Your task to perform on an android device: Do I have any events this weekend? Image 0: 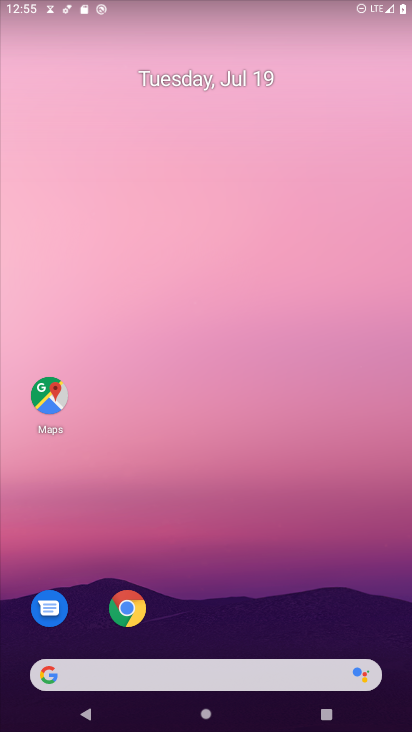
Step 0: drag from (307, 659) to (261, 169)
Your task to perform on an android device: Do I have any events this weekend? Image 1: 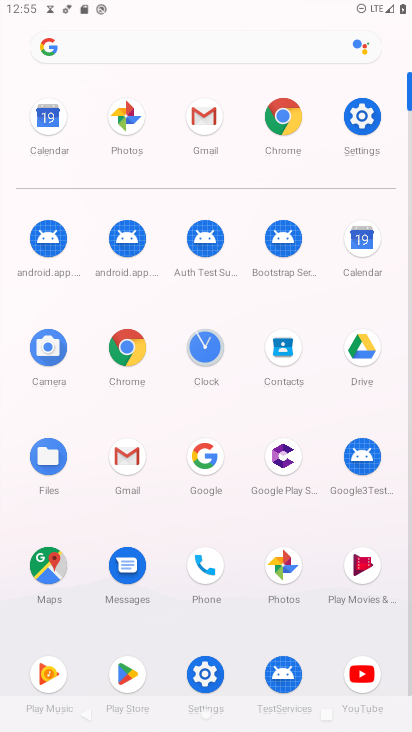
Step 1: click (378, 236)
Your task to perform on an android device: Do I have any events this weekend? Image 2: 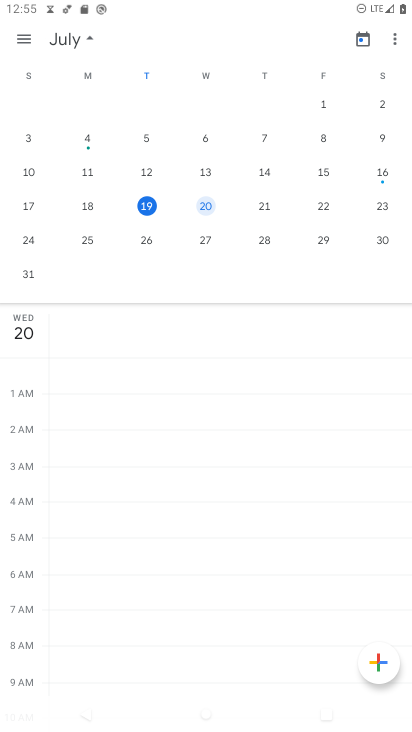
Step 2: click (23, 31)
Your task to perform on an android device: Do I have any events this weekend? Image 3: 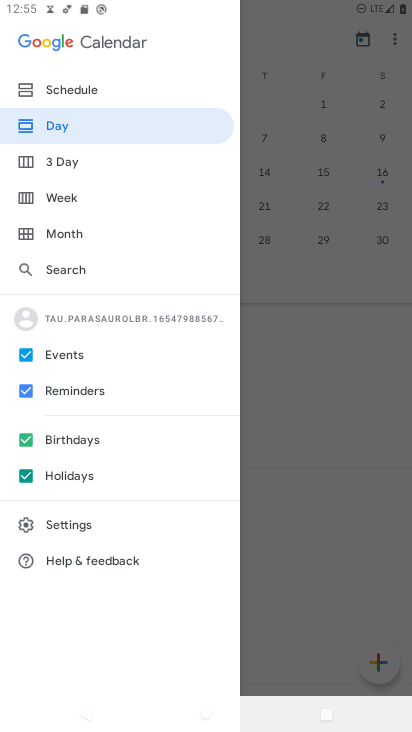
Step 3: click (67, 203)
Your task to perform on an android device: Do I have any events this weekend? Image 4: 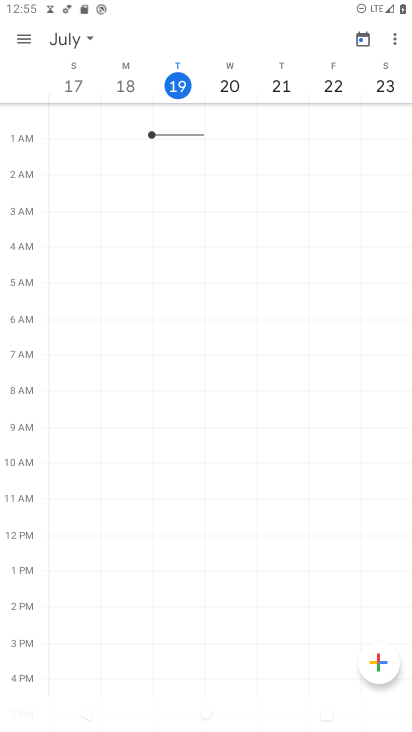
Step 4: task complete